Your task to perform on an android device: toggle translation in the chrome app Image 0: 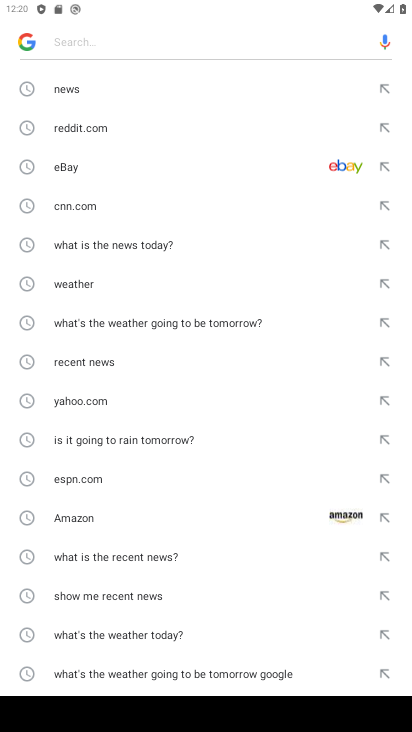
Step 0: press home button
Your task to perform on an android device: toggle translation in the chrome app Image 1: 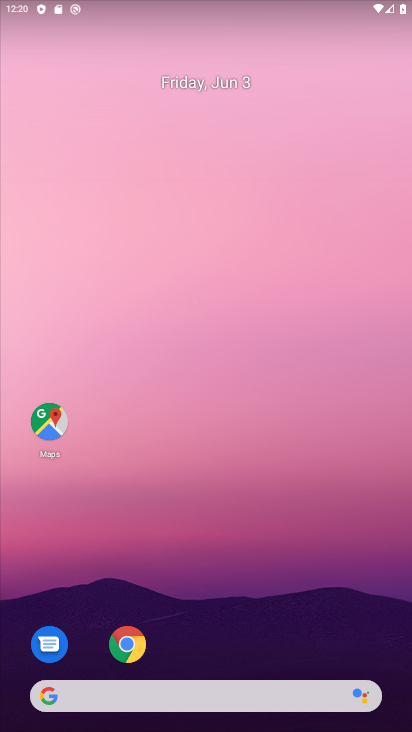
Step 1: click (130, 644)
Your task to perform on an android device: toggle translation in the chrome app Image 2: 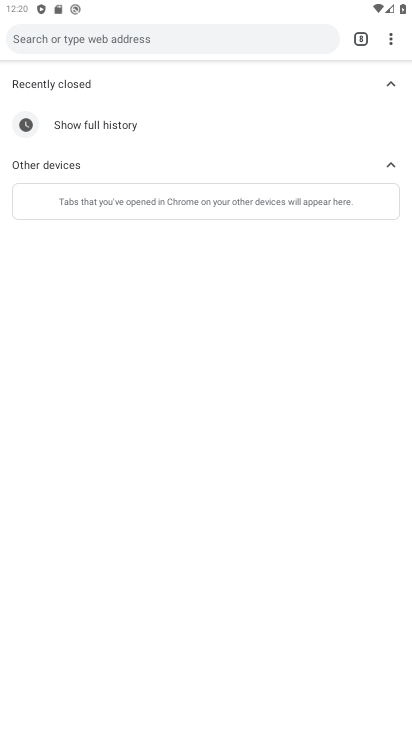
Step 2: click (392, 43)
Your task to perform on an android device: toggle translation in the chrome app Image 3: 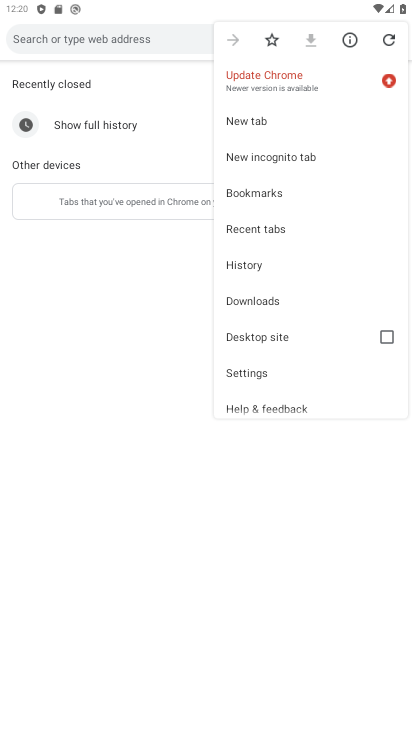
Step 3: click (247, 370)
Your task to perform on an android device: toggle translation in the chrome app Image 4: 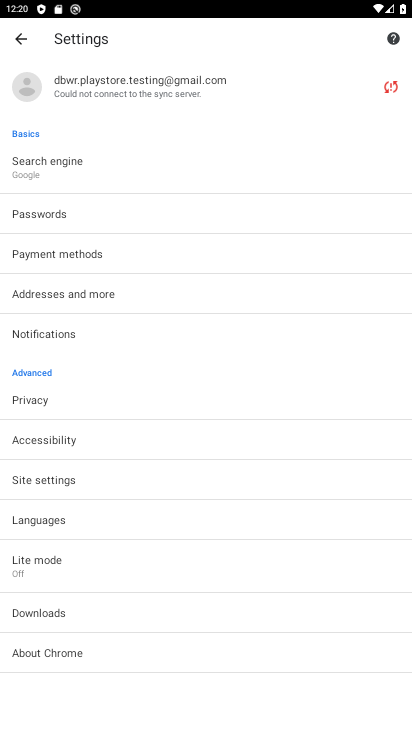
Step 4: click (72, 519)
Your task to perform on an android device: toggle translation in the chrome app Image 5: 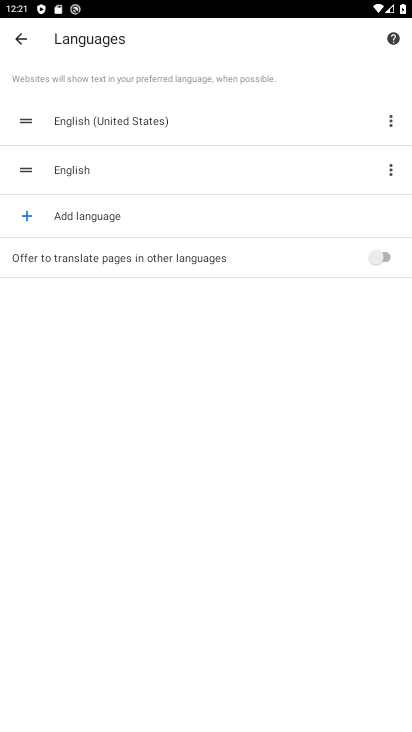
Step 5: click (390, 252)
Your task to perform on an android device: toggle translation in the chrome app Image 6: 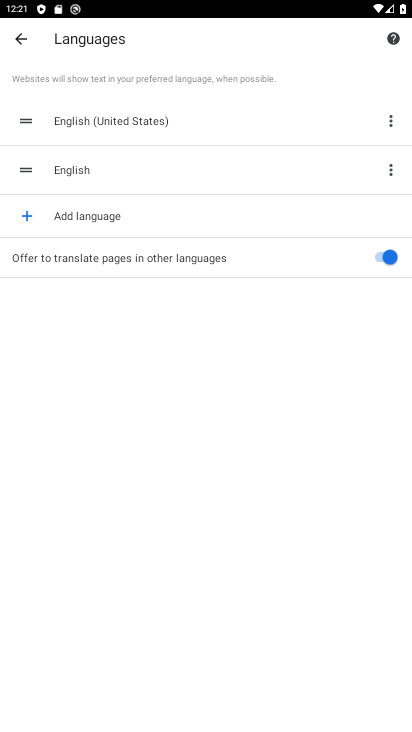
Step 6: task complete